Your task to perform on an android device: Go to eBay Image 0: 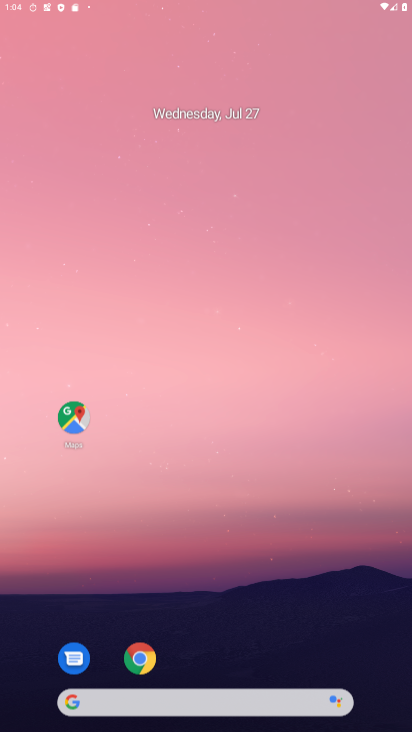
Step 0: press home button
Your task to perform on an android device: Go to eBay Image 1: 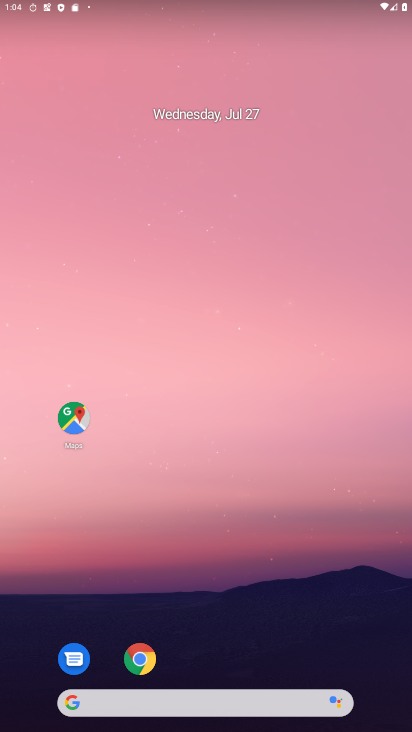
Step 1: click (135, 655)
Your task to perform on an android device: Go to eBay Image 2: 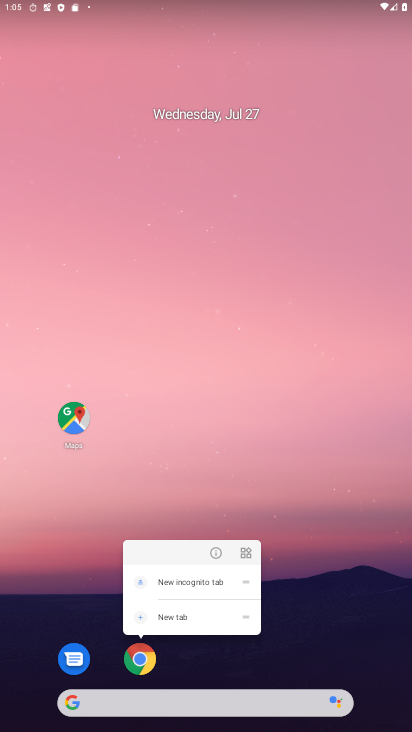
Step 2: click (142, 656)
Your task to perform on an android device: Go to eBay Image 3: 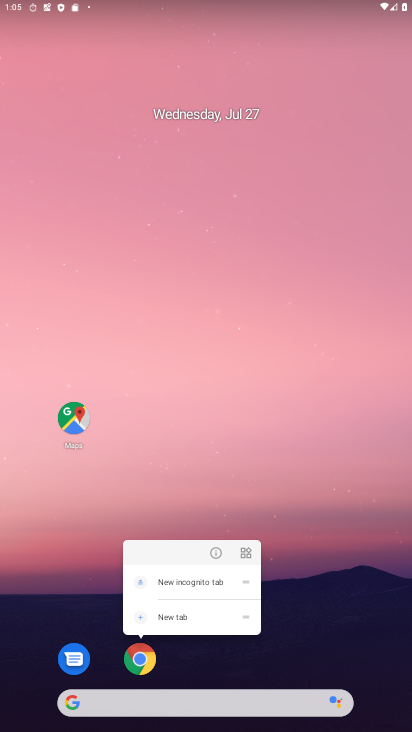
Step 3: click (136, 650)
Your task to perform on an android device: Go to eBay Image 4: 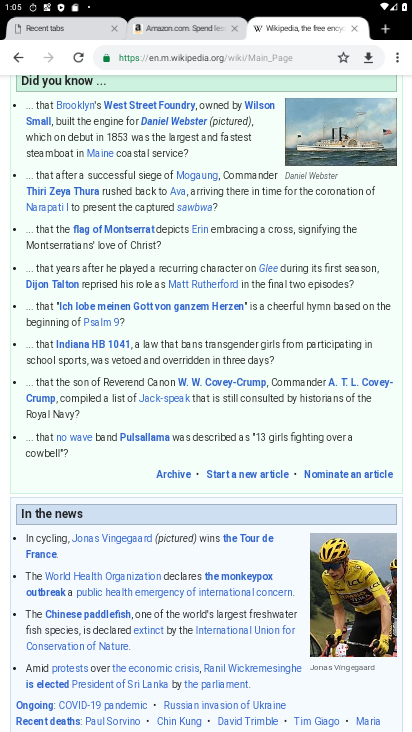
Step 4: click (377, 20)
Your task to perform on an android device: Go to eBay Image 5: 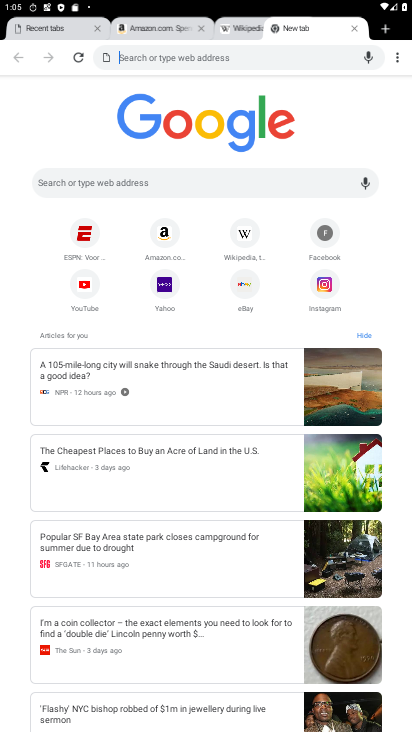
Step 5: click (240, 281)
Your task to perform on an android device: Go to eBay Image 6: 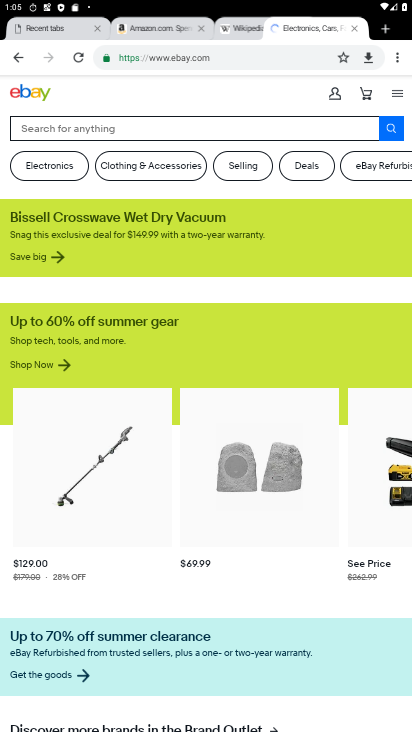
Step 6: task complete